Your task to perform on an android device: turn off notifications settings in the gmail app Image 0: 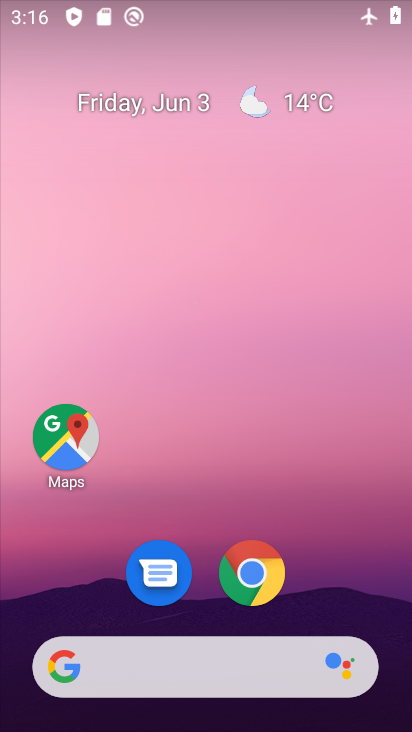
Step 0: drag from (221, 541) to (227, 167)
Your task to perform on an android device: turn off notifications settings in the gmail app Image 1: 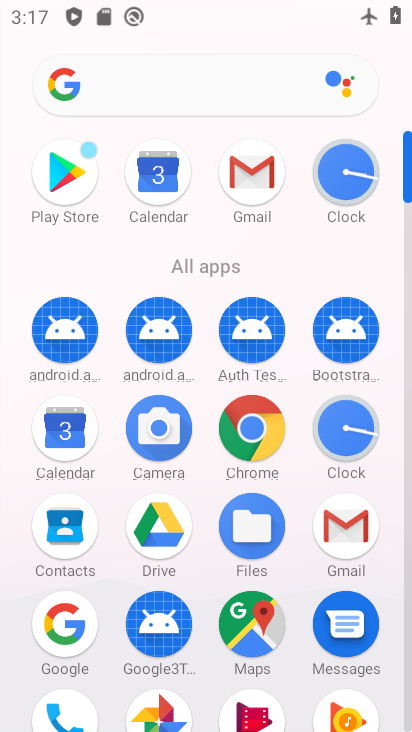
Step 1: click (258, 177)
Your task to perform on an android device: turn off notifications settings in the gmail app Image 2: 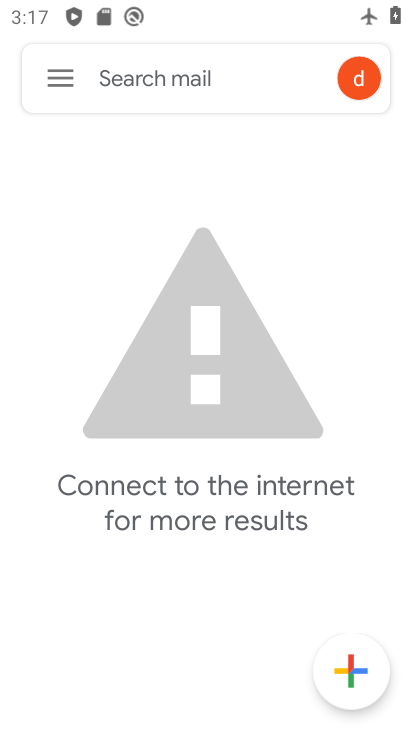
Step 2: click (56, 85)
Your task to perform on an android device: turn off notifications settings in the gmail app Image 3: 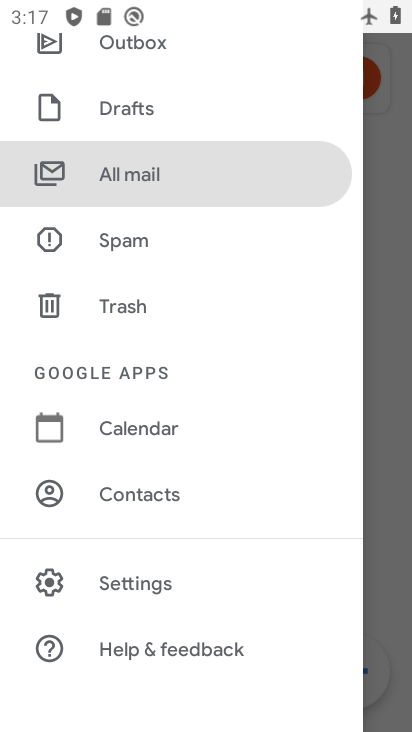
Step 3: drag from (128, 440) to (185, 142)
Your task to perform on an android device: turn off notifications settings in the gmail app Image 4: 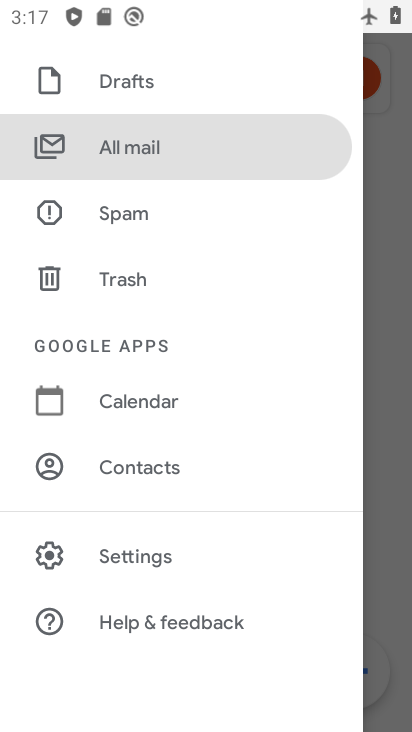
Step 4: click (139, 555)
Your task to perform on an android device: turn off notifications settings in the gmail app Image 5: 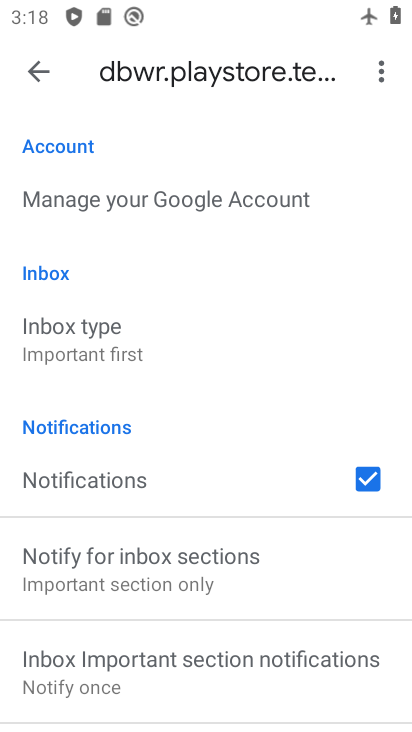
Step 5: click (29, 73)
Your task to perform on an android device: turn off notifications settings in the gmail app Image 6: 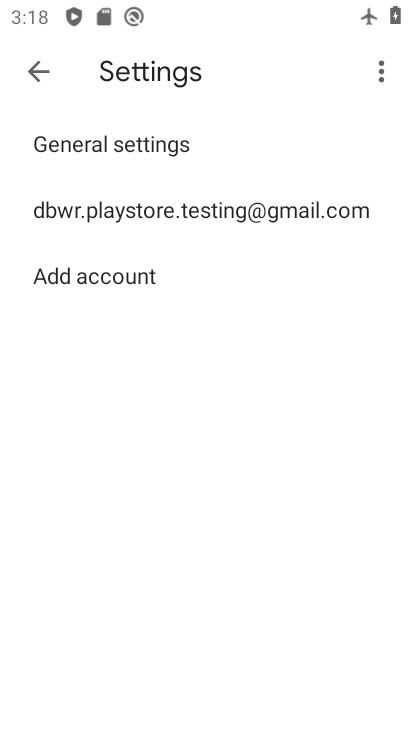
Step 6: click (136, 138)
Your task to perform on an android device: turn off notifications settings in the gmail app Image 7: 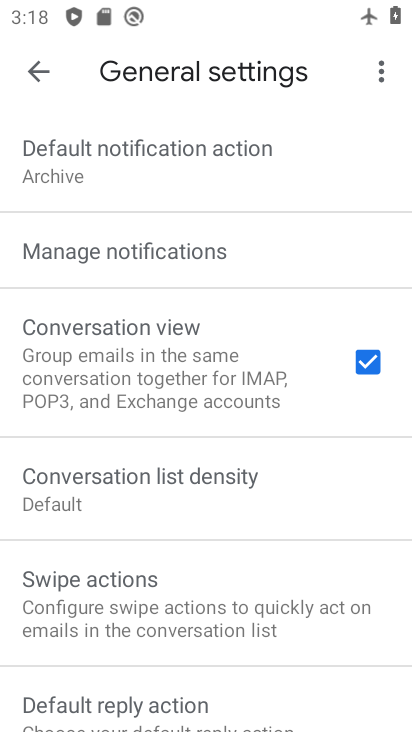
Step 7: click (127, 240)
Your task to perform on an android device: turn off notifications settings in the gmail app Image 8: 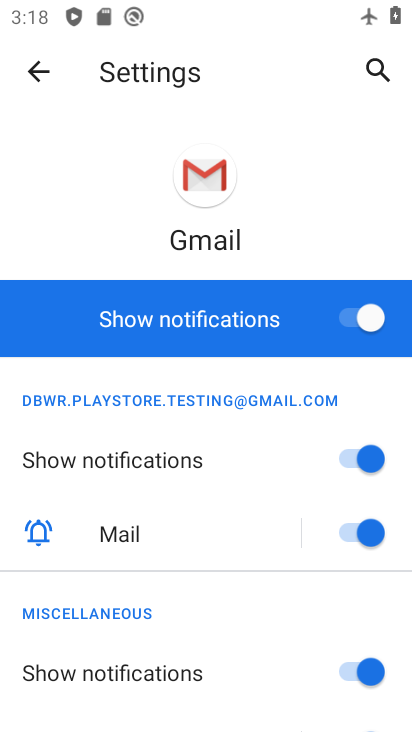
Step 8: click (149, 322)
Your task to perform on an android device: turn off notifications settings in the gmail app Image 9: 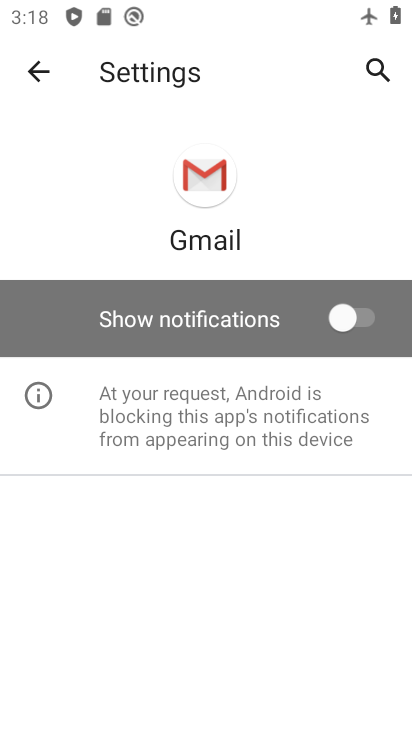
Step 9: task complete